Your task to perform on an android device: turn pop-ups off in chrome Image 0: 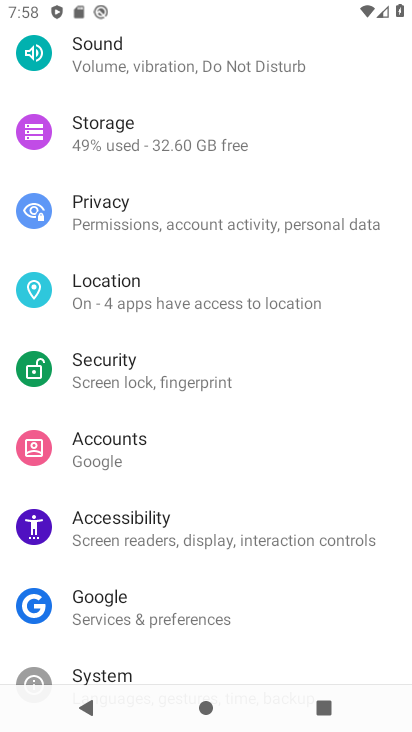
Step 0: press home button
Your task to perform on an android device: turn pop-ups off in chrome Image 1: 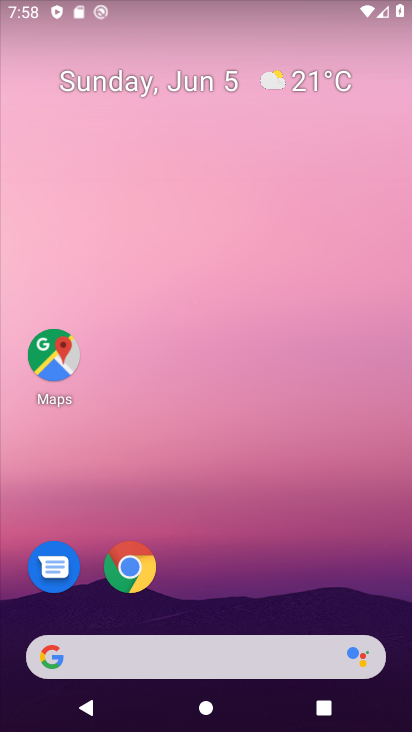
Step 1: click (125, 567)
Your task to perform on an android device: turn pop-ups off in chrome Image 2: 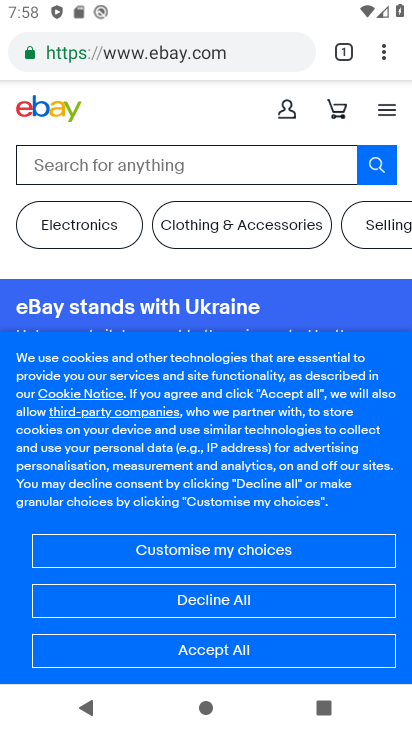
Step 2: click (383, 55)
Your task to perform on an android device: turn pop-ups off in chrome Image 3: 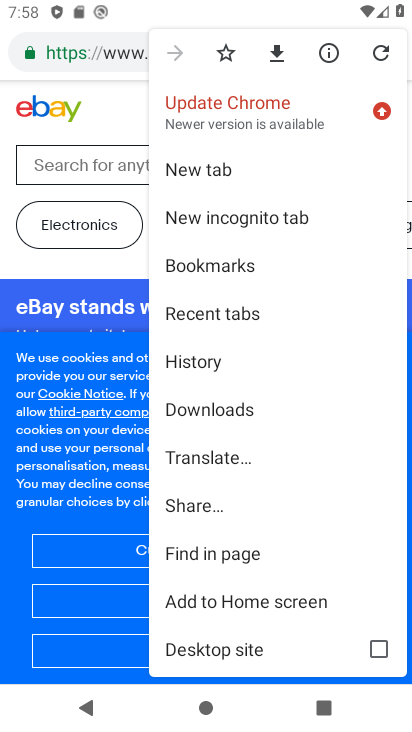
Step 3: drag from (216, 623) to (210, 162)
Your task to perform on an android device: turn pop-ups off in chrome Image 4: 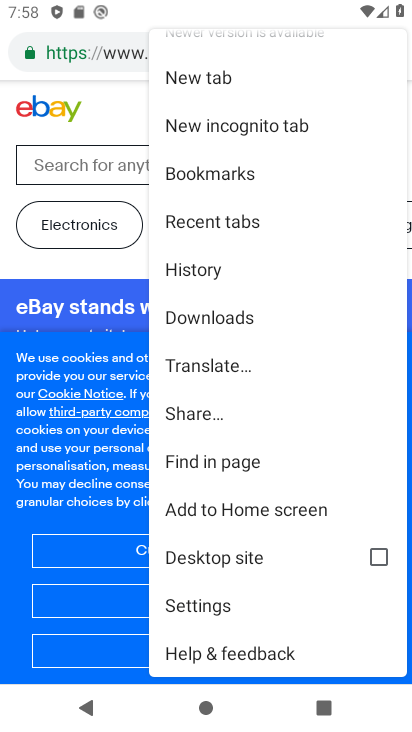
Step 4: click (206, 600)
Your task to perform on an android device: turn pop-ups off in chrome Image 5: 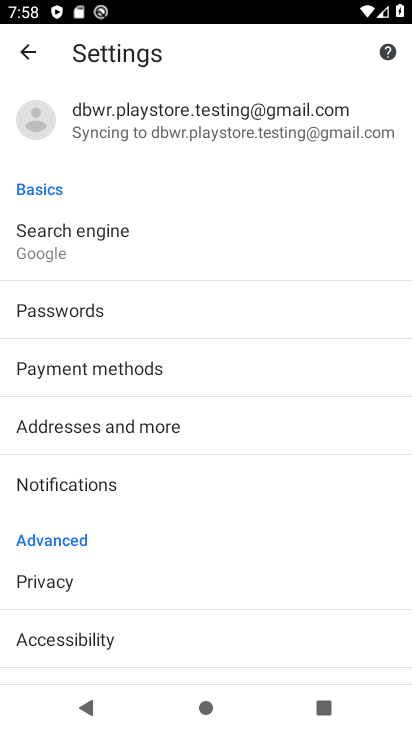
Step 5: drag from (54, 646) to (107, 35)
Your task to perform on an android device: turn pop-ups off in chrome Image 6: 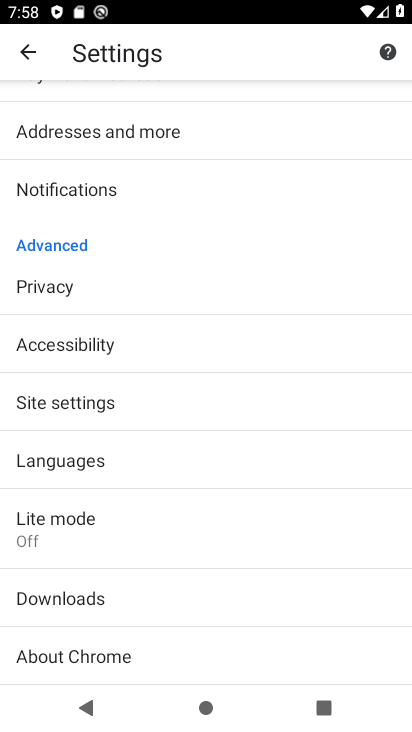
Step 6: click (58, 411)
Your task to perform on an android device: turn pop-ups off in chrome Image 7: 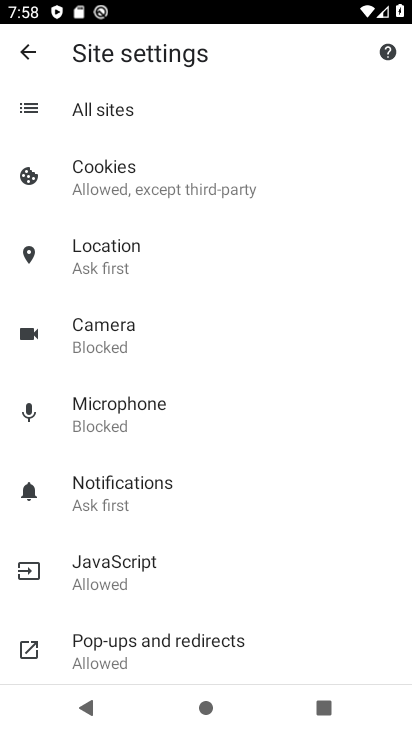
Step 7: click (114, 651)
Your task to perform on an android device: turn pop-ups off in chrome Image 8: 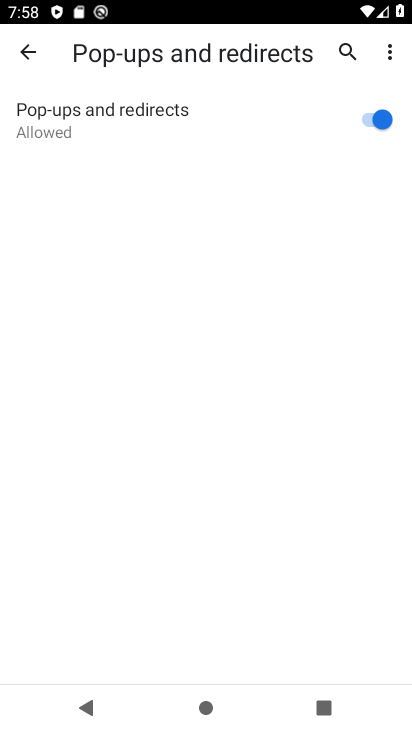
Step 8: click (366, 118)
Your task to perform on an android device: turn pop-ups off in chrome Image 9: 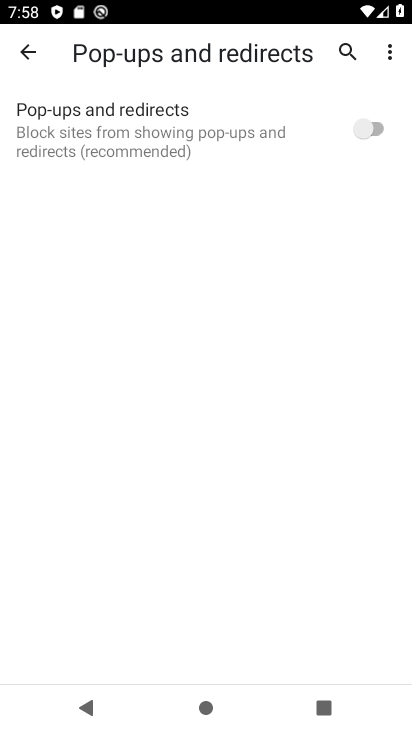
Step 9: task complete